Your task to perform on an android device: Open Chrome and go to settings Image 0: 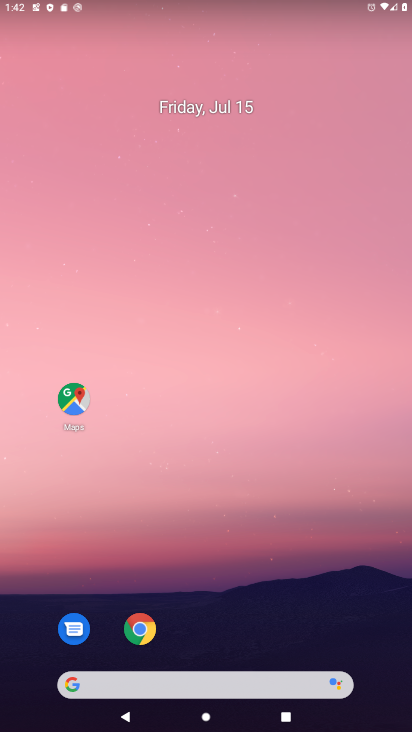
Step 0: drag from (297, 638) to (278, 121)
Your task to perform on an android device: Open Chrome and go to settings Image 1: 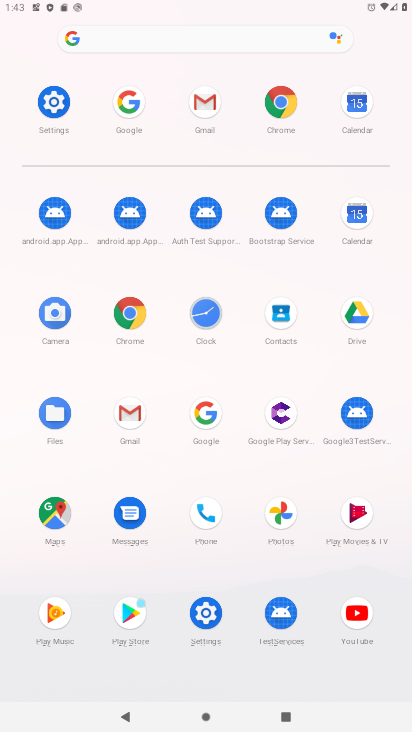
Step 1: click (279, 98)
Your task to perform on an android device: Open Chrome and go to settings Image 2: 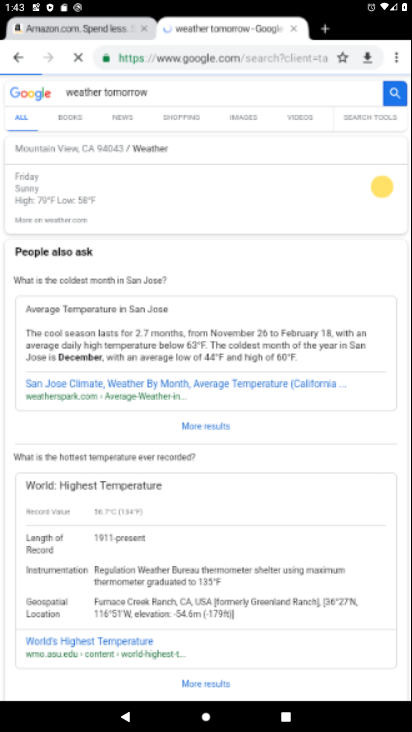
Step 2: click (398, 54)
Your task to perform on an android device: Open Chrome and go to settings Image 3: 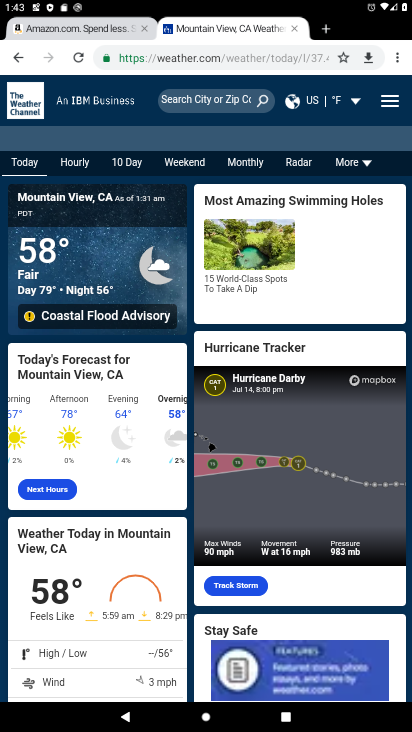
Step 3: task complete